Your task to perform on an android device: Empty the shopping cart on walmart.com. Search for "usb-c to usb-a" on walmart.com, select the first entry, and add it to the cart. Image 0: 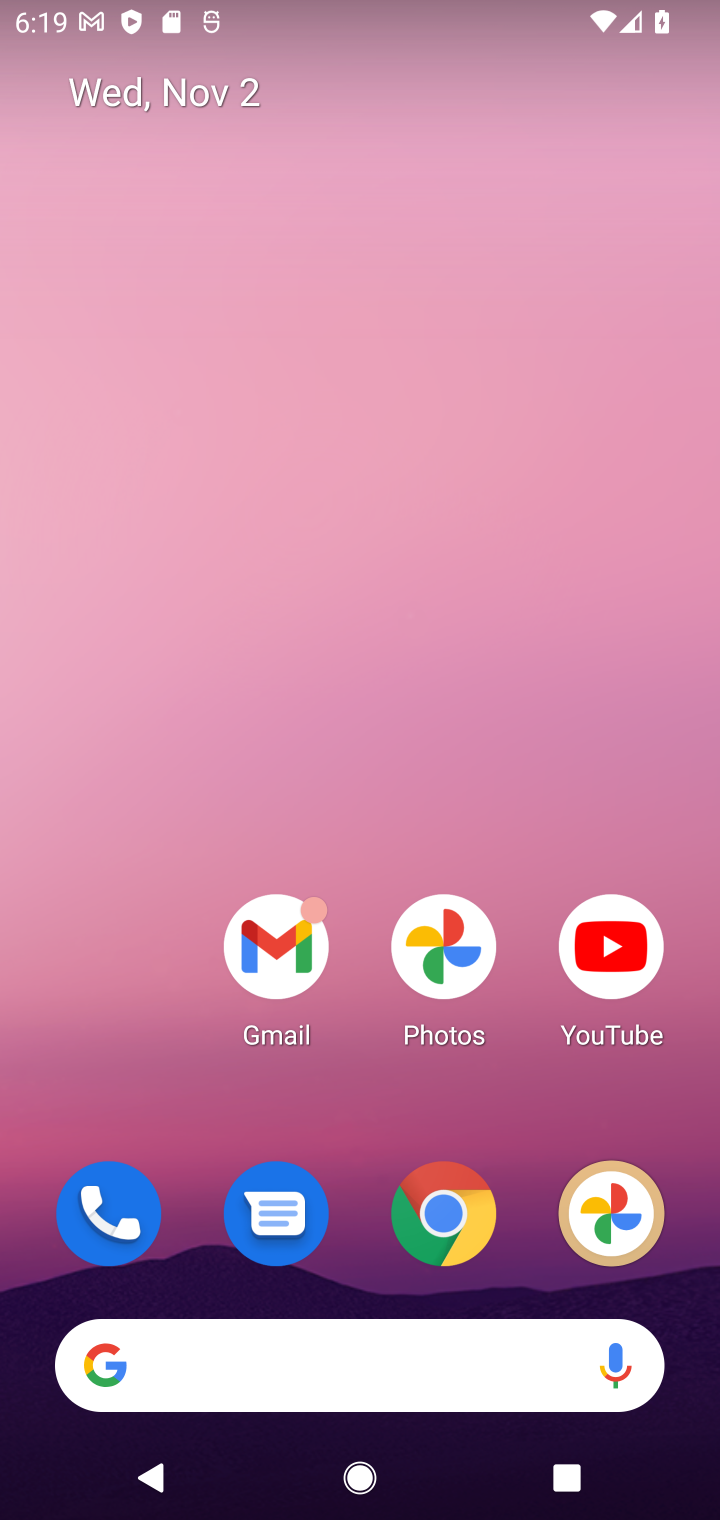
Step 0: click (442, 1229)
Your task to perform on an android device: Empty the shopping cart on walmart.com. Search for "usb-c to usb-a" on walmart.com, select the first entry, and add it to the cart. Image 1: 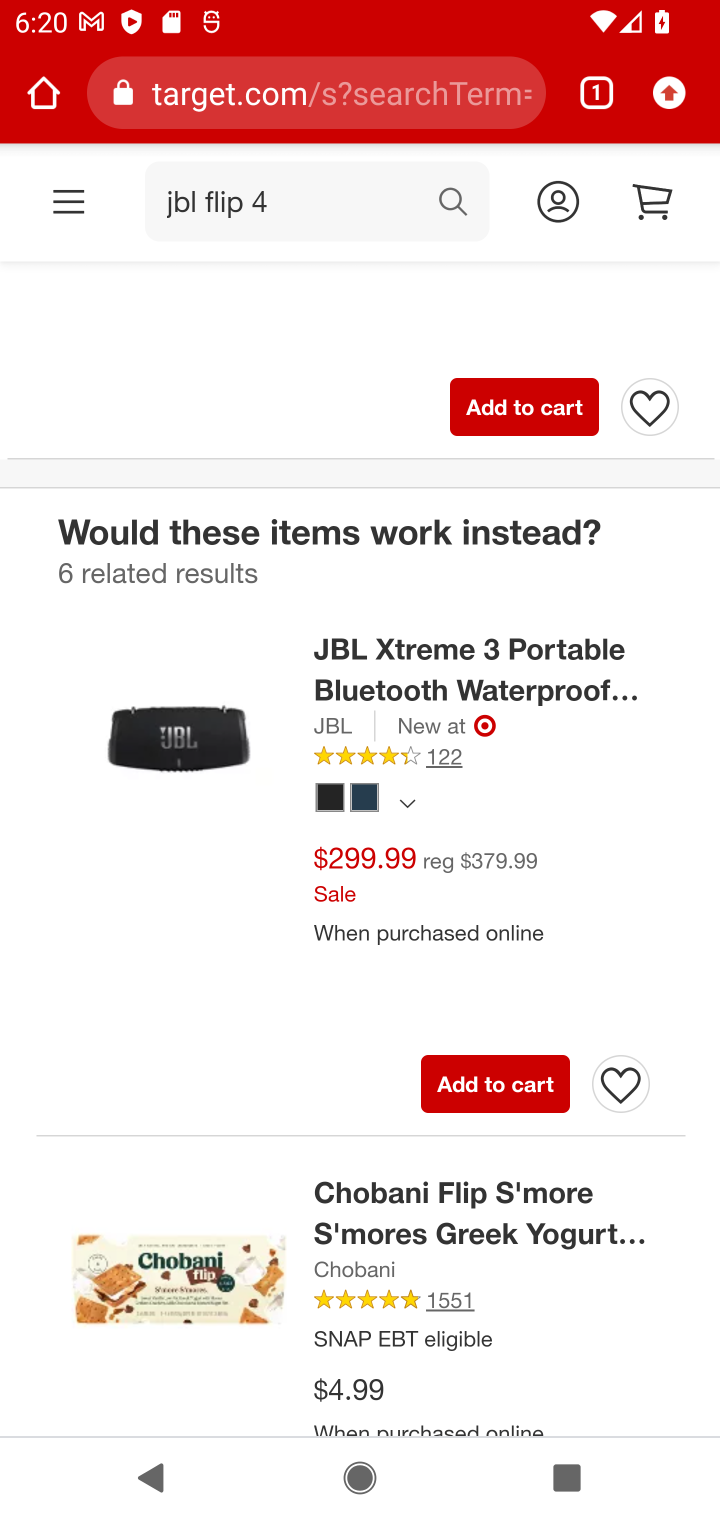
Step 1: click (313, 61)
Your task to perform on an android device: Empty the shopping cart on walmart.com. Search for "usb-c to usb-a" on walmart.com, select the first entry, and add it to the cart. Image 2: 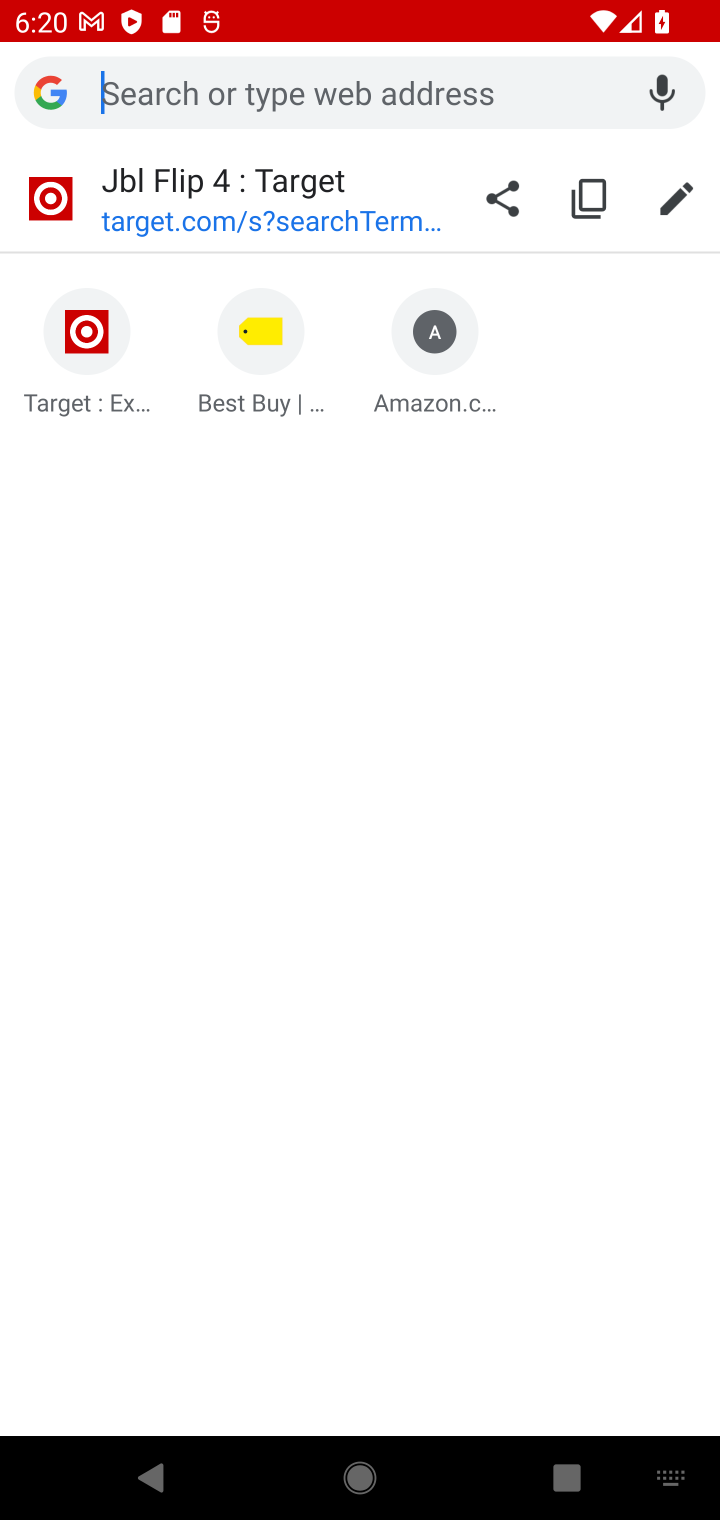
Step 2: type "walmart"
Your task to perform on an android device: Empty the shopping cart on walmart.com. Search for "usb-c to usb-a" on walmart.com, select the first entry, and add it to the cart. Image 3: 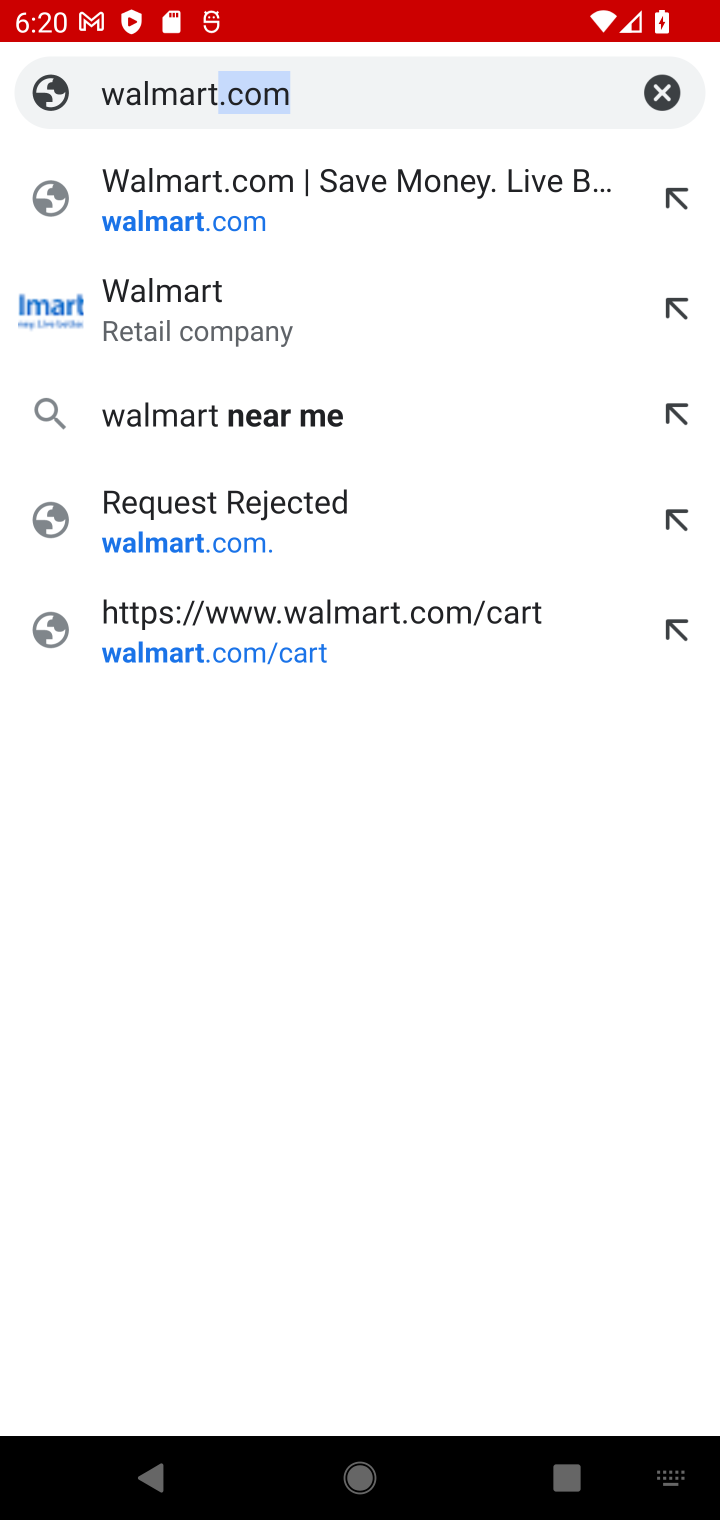
Step 3: click (143, 312)
Your task to perform on an android device: Empty the shopping cart on walmart.com. Search for "usb-c to usb-a" on walmart.com, select the first entry, and add it to the cart. Image 4: 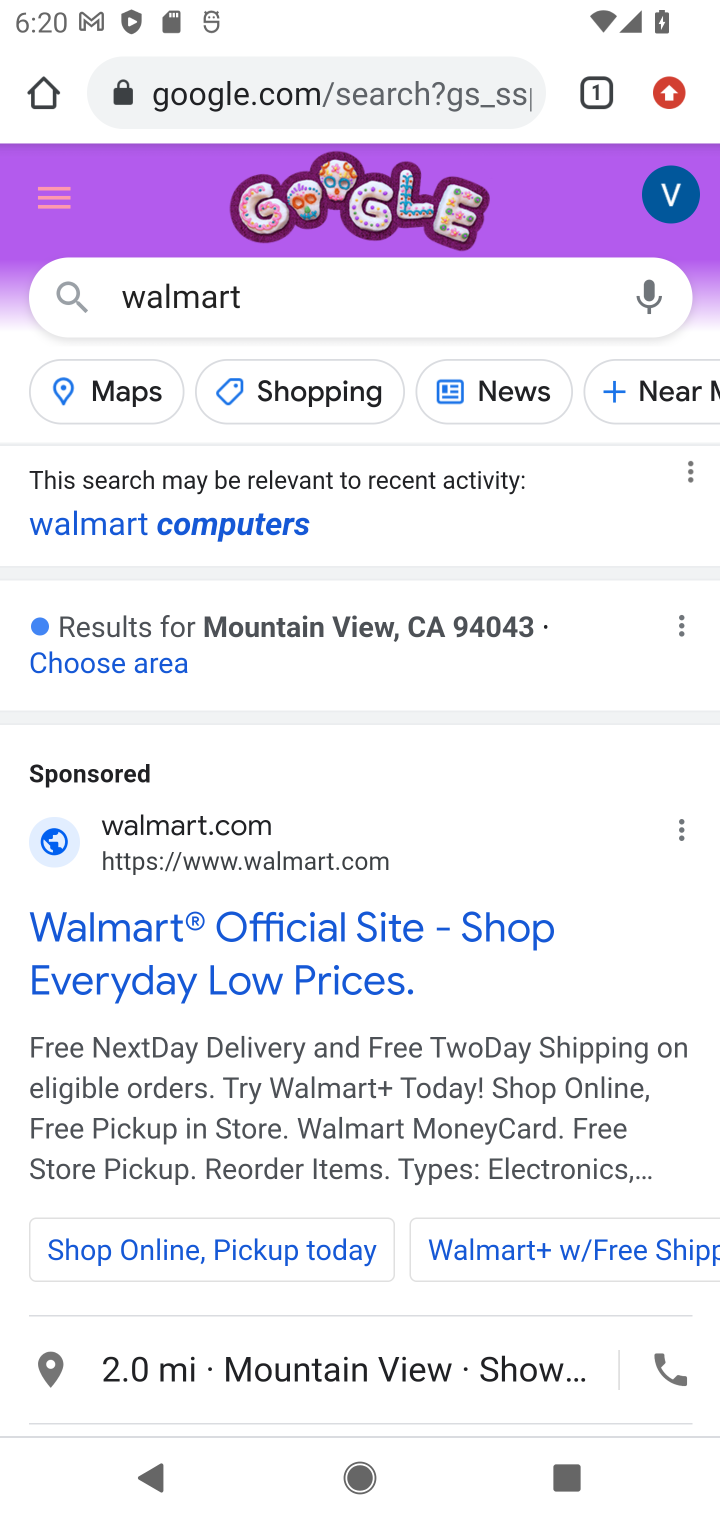
Step 4: click (124, 935)
Your task to perform on an android device: Empty the shopping cart on walmart.com. Search for "usb-c to usb-a" on walmart.com, select the first entry, and add it to the cart. Image 5: 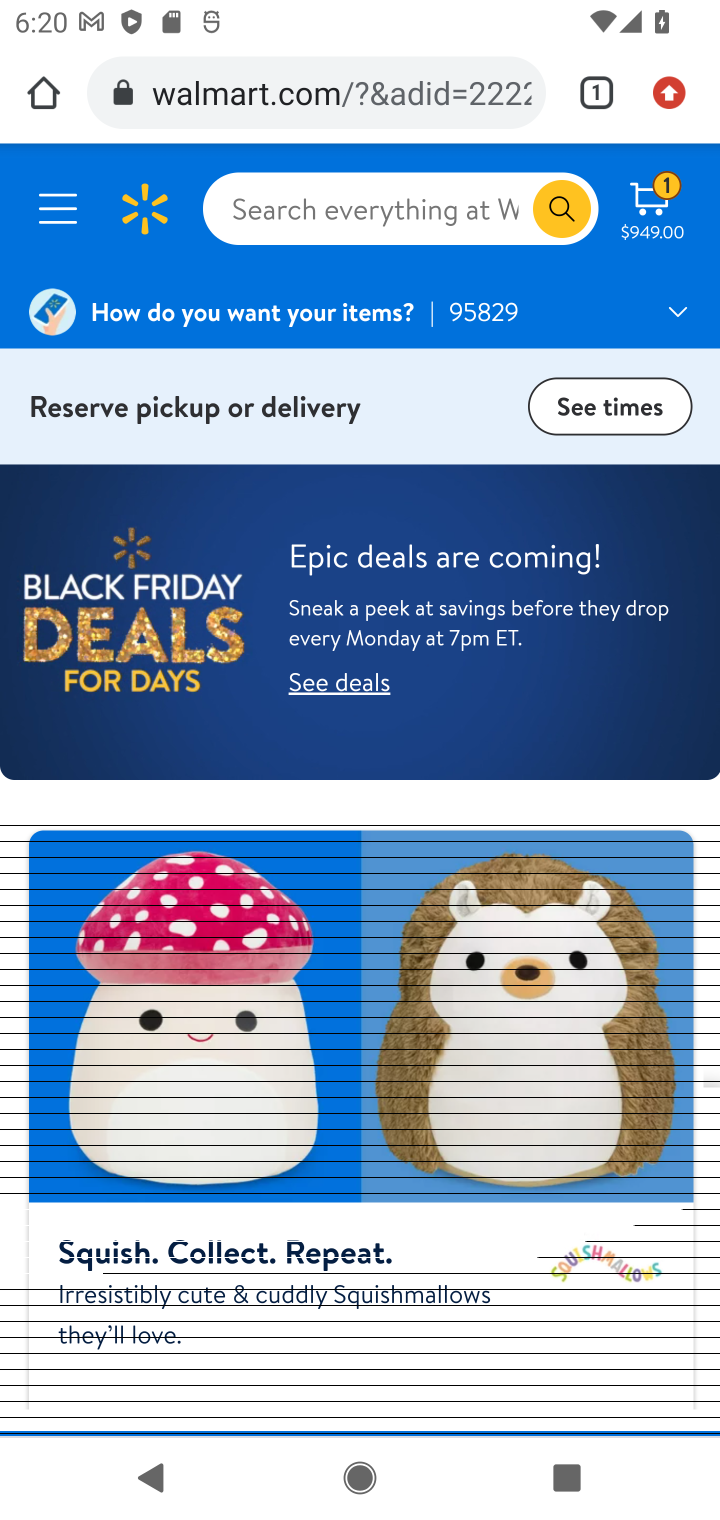
Step 5: click (666, 1134)
Your task to perform on an android device: Empty the shopping cart on walmart.com. Search for "usb-c to usb-a" on walmart.com, select the first entry, and add it to the cart. Image 6: 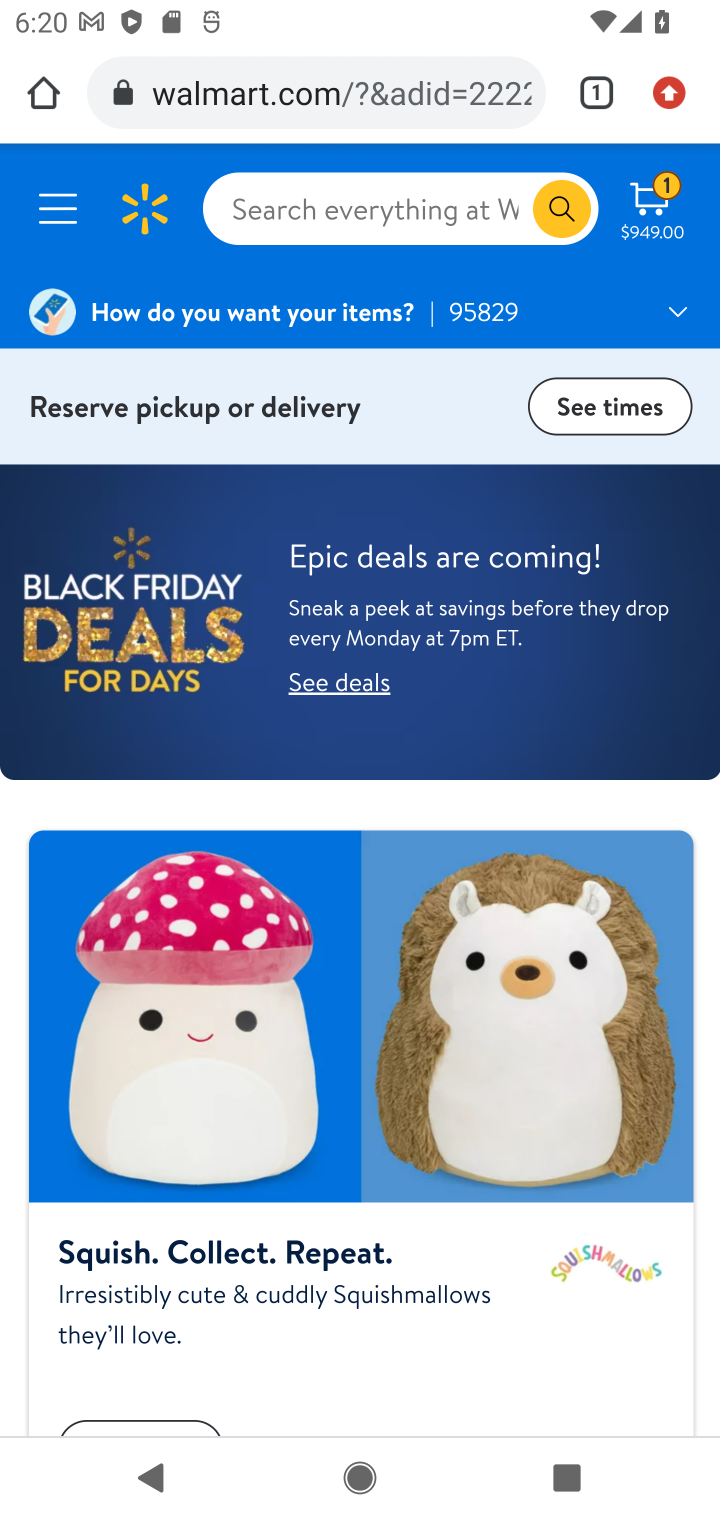
Step 6: click (651, 197)
Your task to perform on an android device: Empty the shopping cart on walmart.com. Search for "usb-c to usb-a" on walmart.com, select the first entry, and add it to the cart. Image 7: 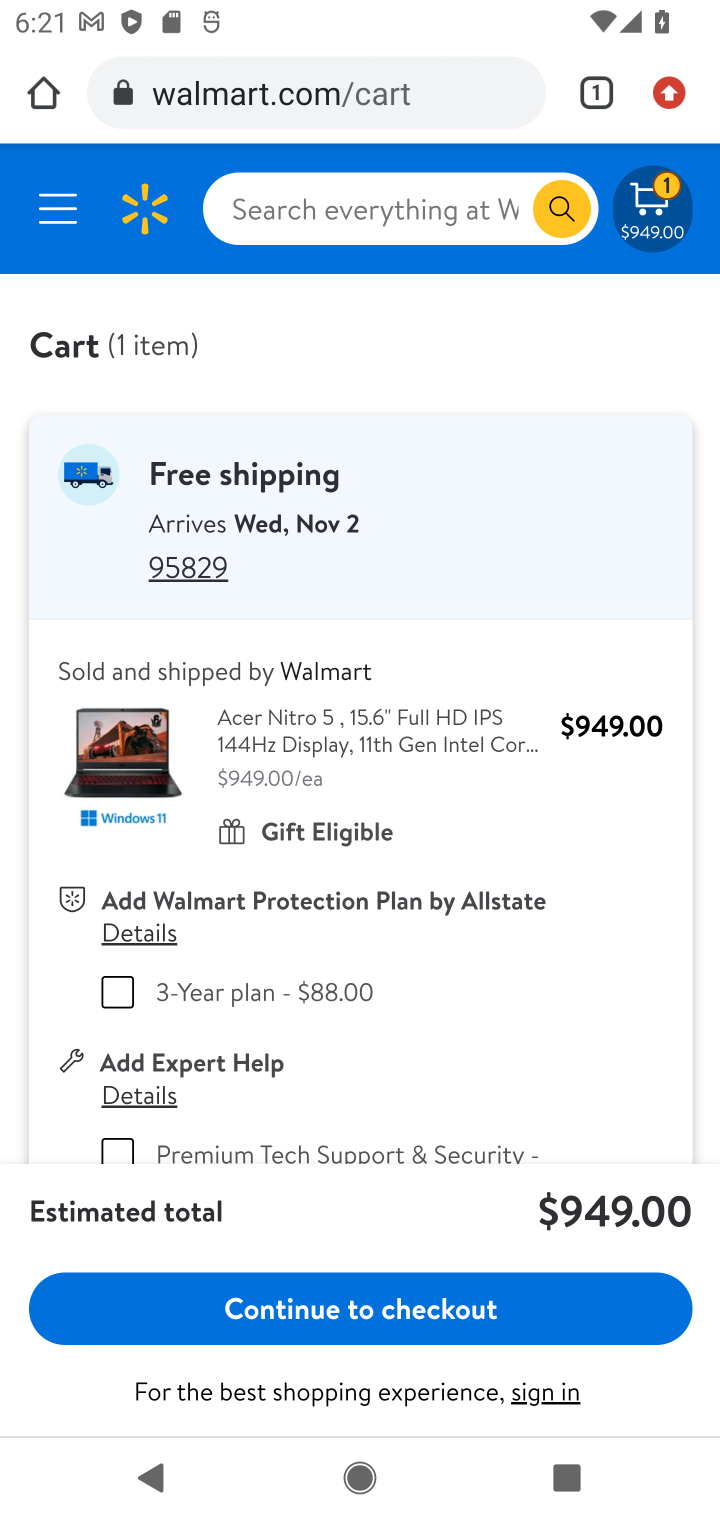
Step 7: drag from (608, 1082) to (579, 536)
Your task to perform on an android device: Empty the shopping cart on walmart.com. Search for "usb-c to usb-a" on walmart.com, select the first entry, and add it to the cart. Image 8: 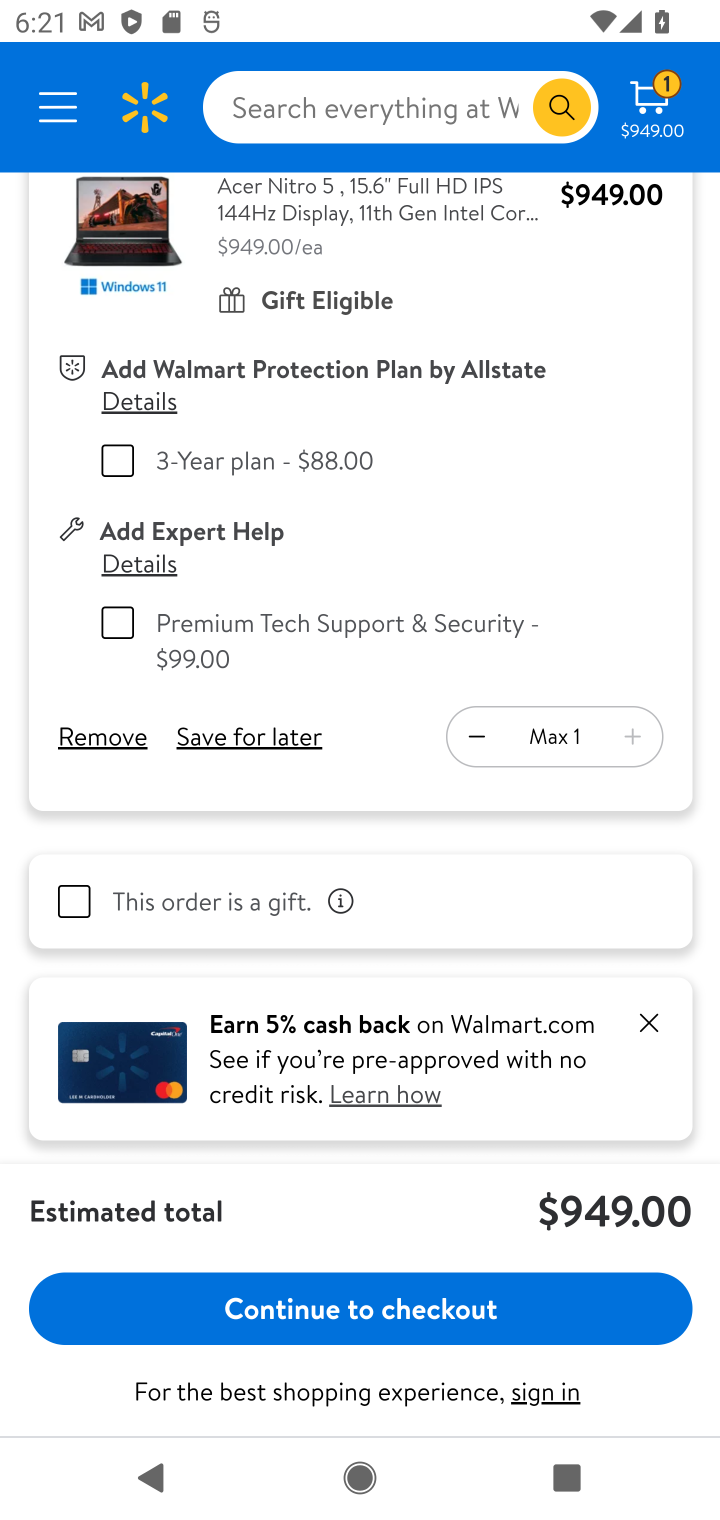
Step 8: click (91, 738)
Your task to perform on an android device: Empty the shopping cart on walmart.com. Search for "usb-c to usb-a" on walmart.com, select the first entry, and add it to the cart. Image 9: 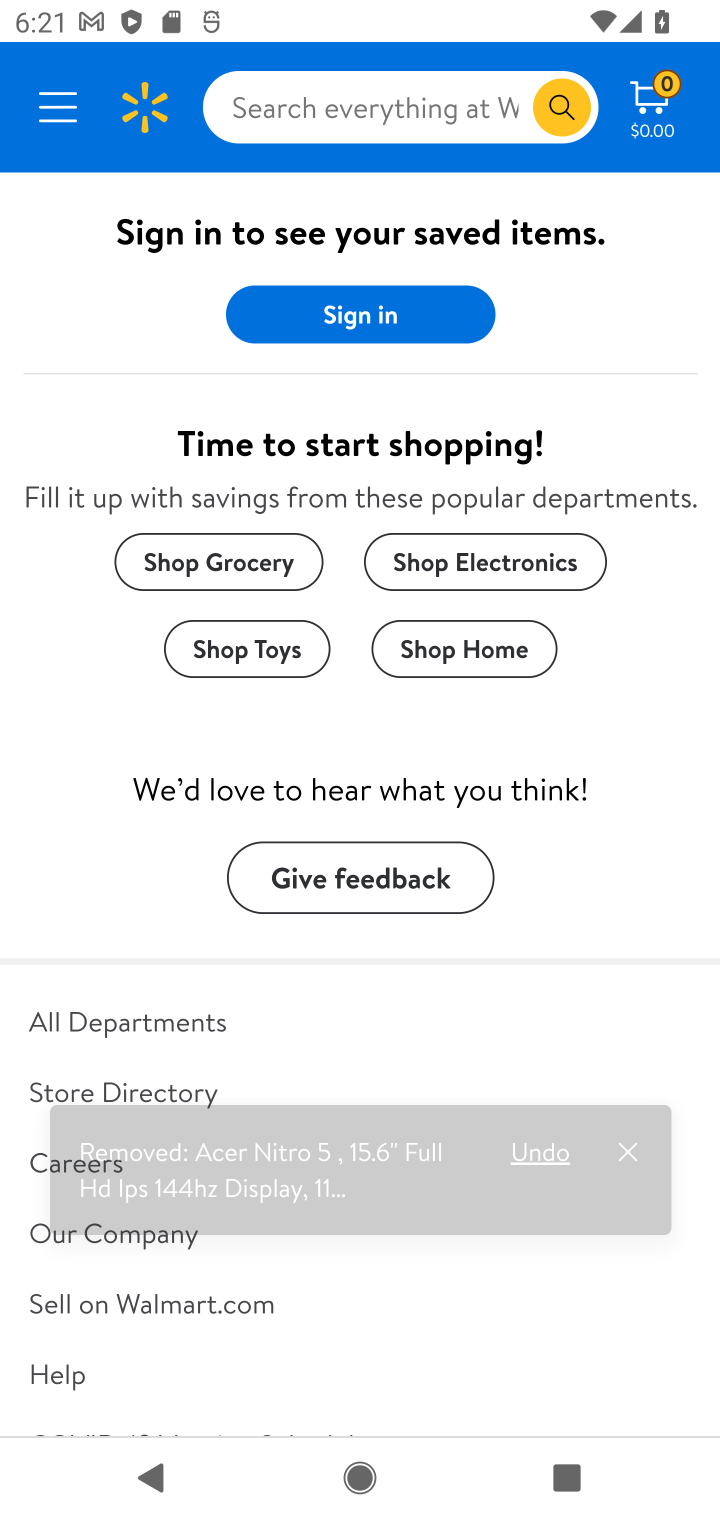
Step 9: click (341, 107)
Your task to perform on an android device: Empty the shopping cart on walmart.com. Search for "usb-c to usb-a" on walmart.com, select the first entry, and add it to the cart. Image 10: 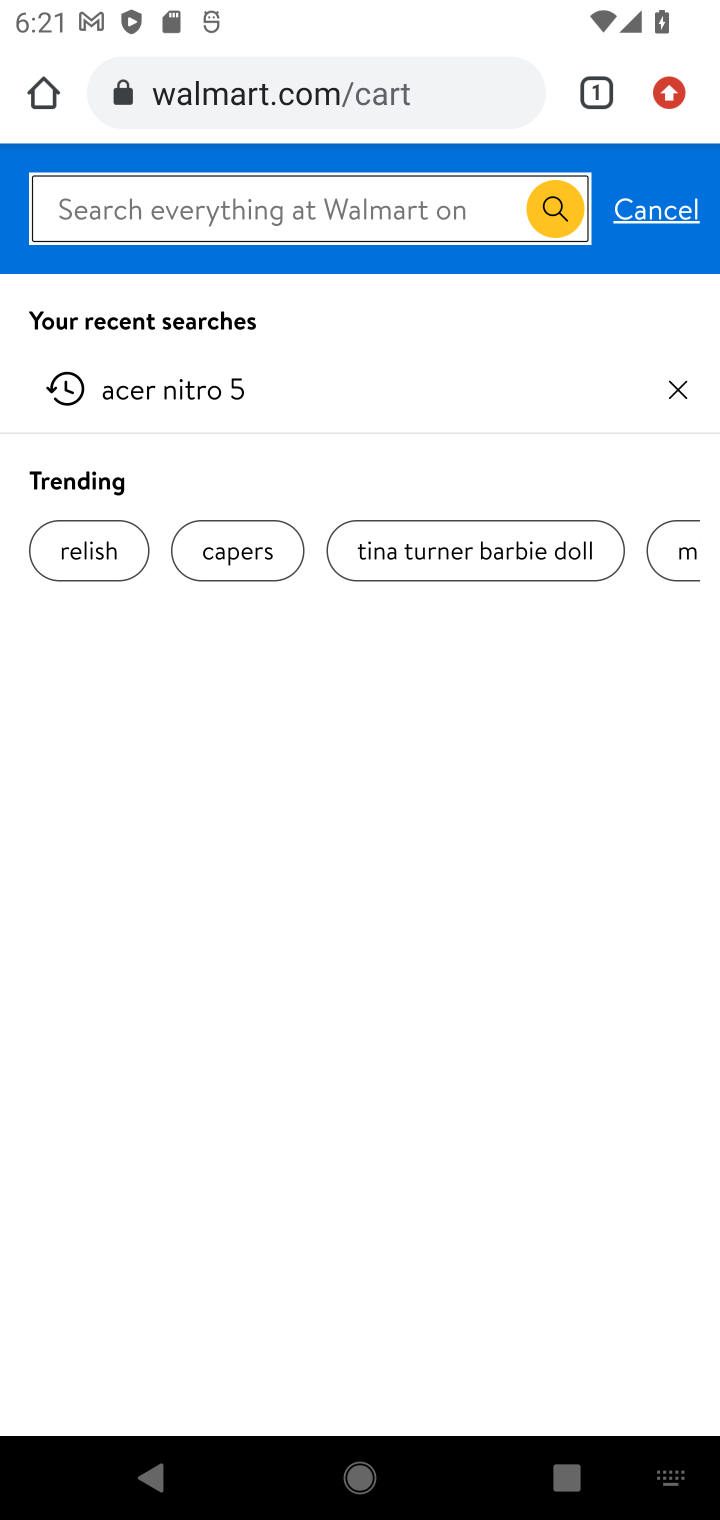
Step 10: type "usb-c to usb-a"
Your task to perform on an android device: Empty the shopping cart on walmart.com. Search for "usb-c to usb-a" on walmart.com, select the first entry, and add it to the cart. Image 11: 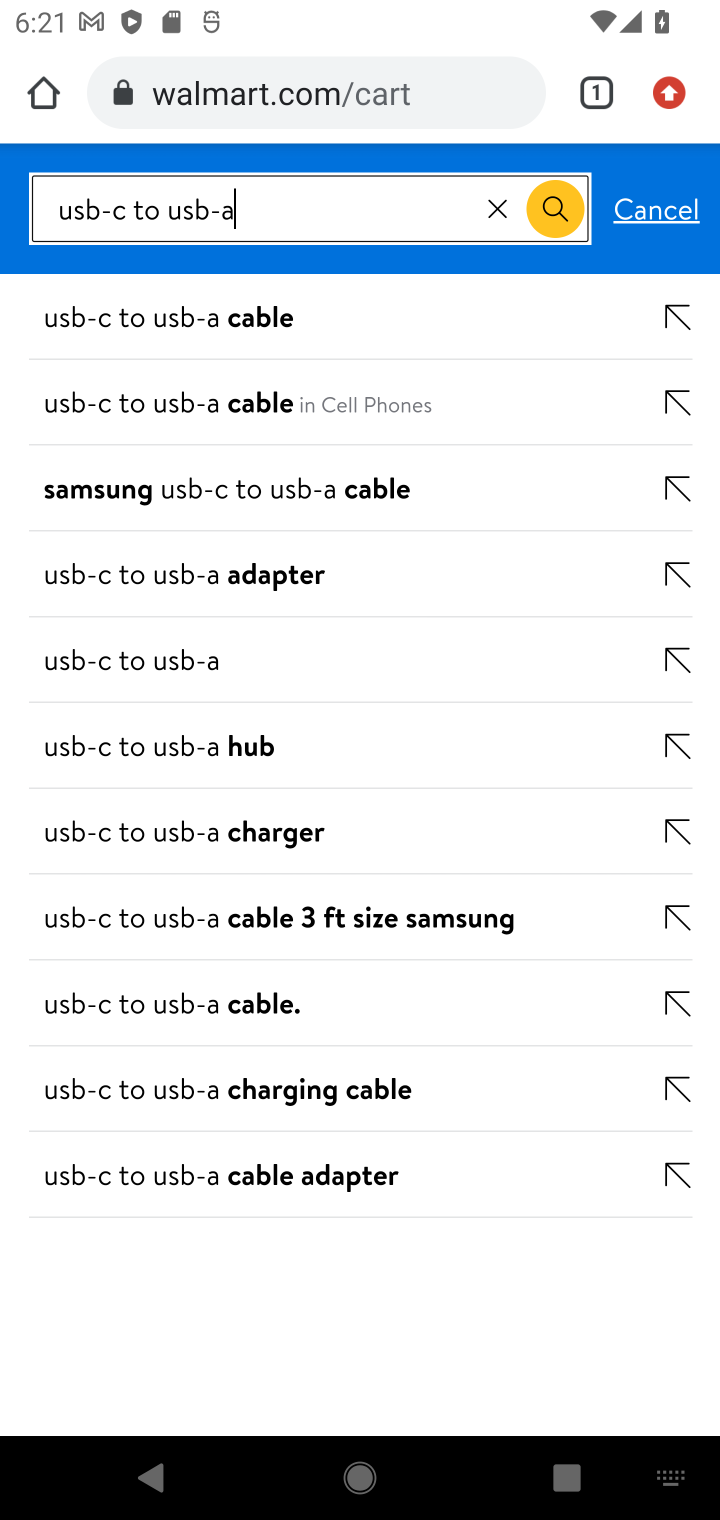
Step 11: click (104, 301)
Your task to perform on an android device: Empty the shopping cart on walmart.com. Search for "usb-c to usb-a" on walmart.com, select the first entry, and add it to the cart. Image 12: 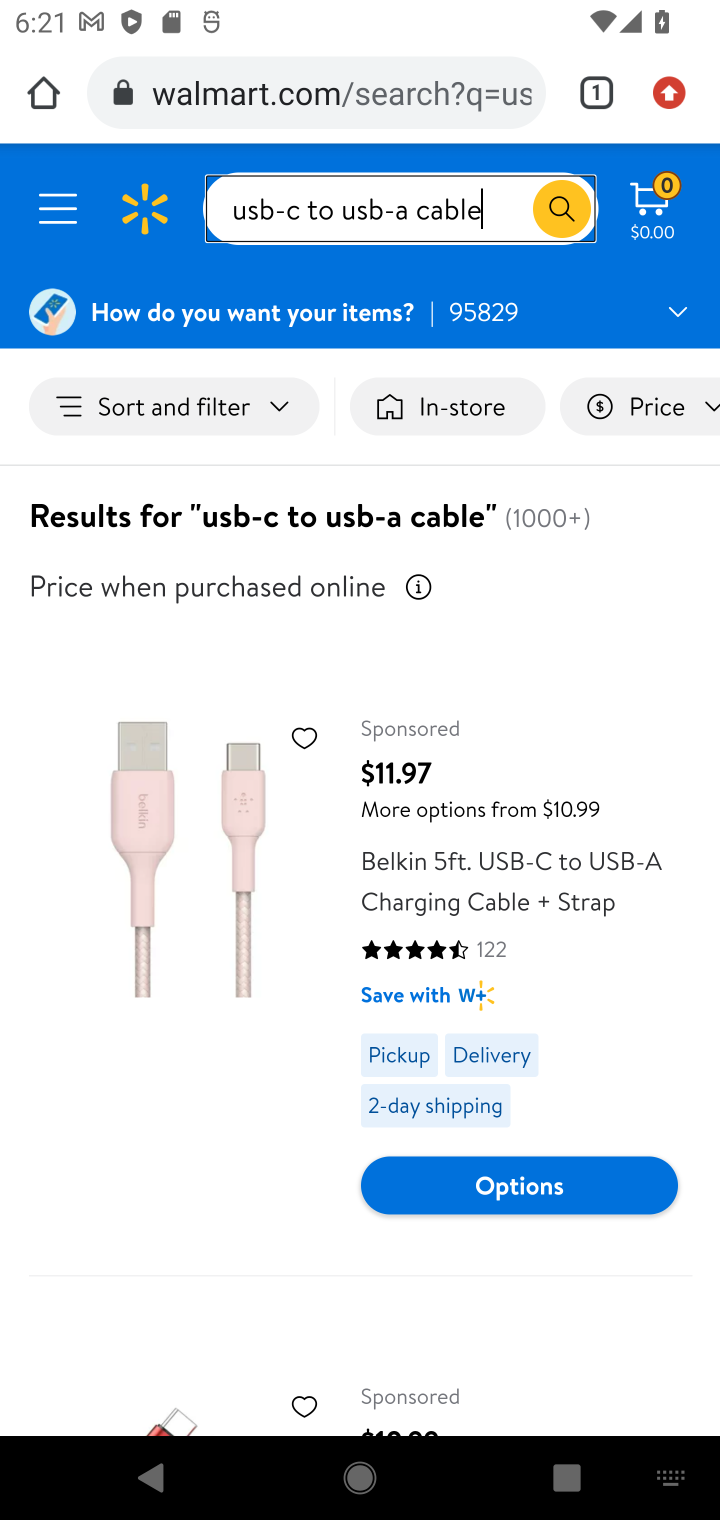
Step 12: drag from (313, 1069) to (354, 859)
Your task to perform on an android device: Empty the shopping cart on walmart.com. Search for "usb-c to usb-a" on walmart.com, select the first entry, and add it to the cart. Image 13: 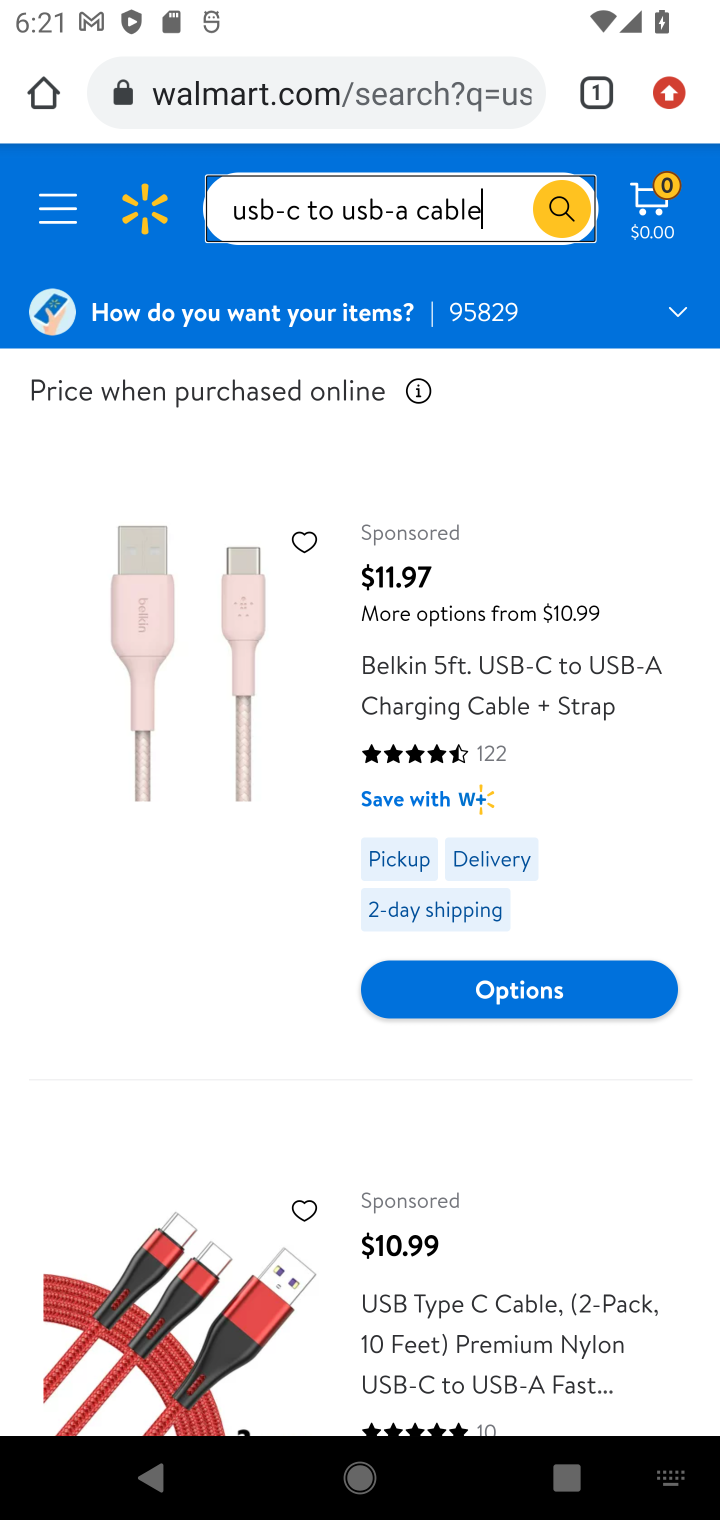
Step 13: click (500, 988)
Your task to perform on an android device: Empty the shopping cart on walmart.com. Search for "usb-c to usb-a" on walmart.com, select the first entry, and add it to the cart. Image 14: 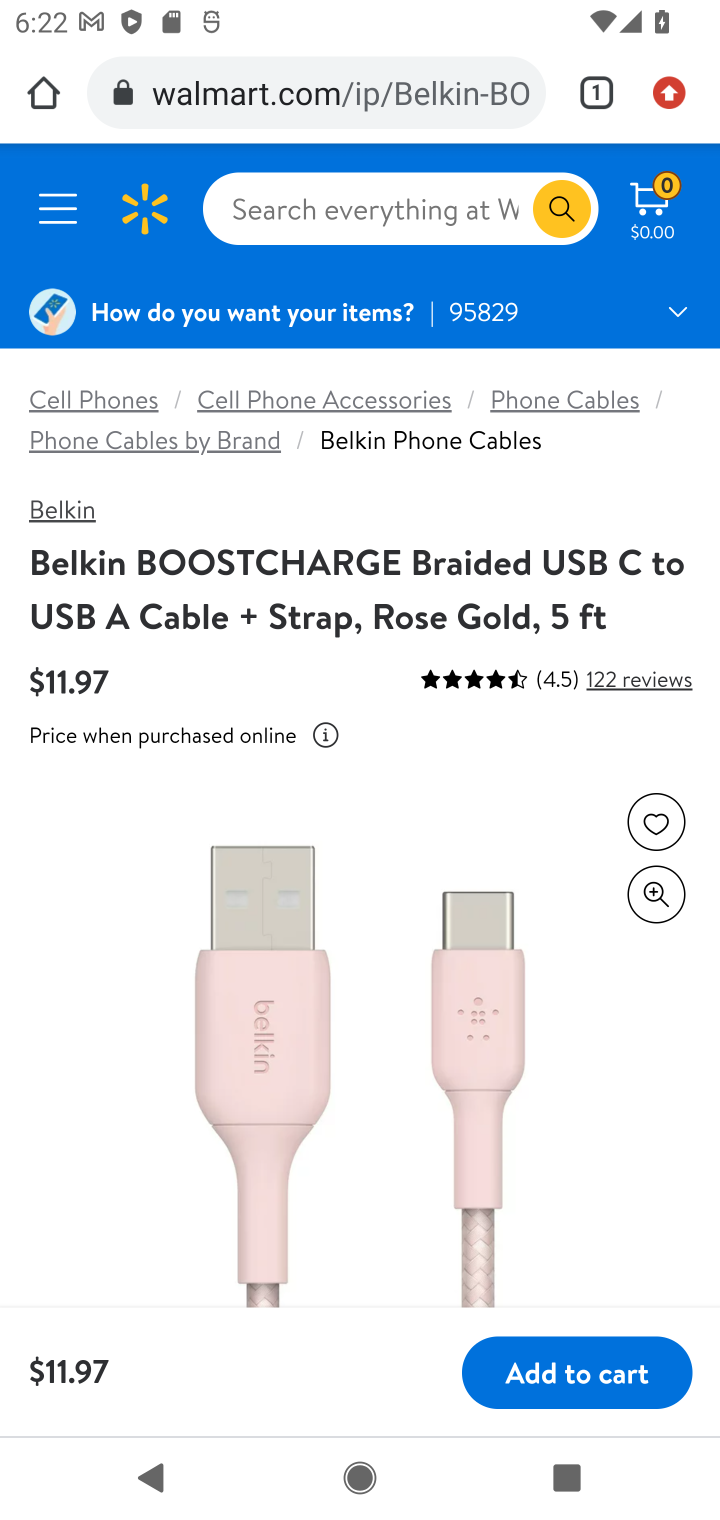
Step 14: click (600, 1368)
Your task to perform on an android device: Empty the shopping cart on walmart.com. Search for "usb-c to usb-a" on walmart.com, select the first entry, and add it to the cart. Image 15: 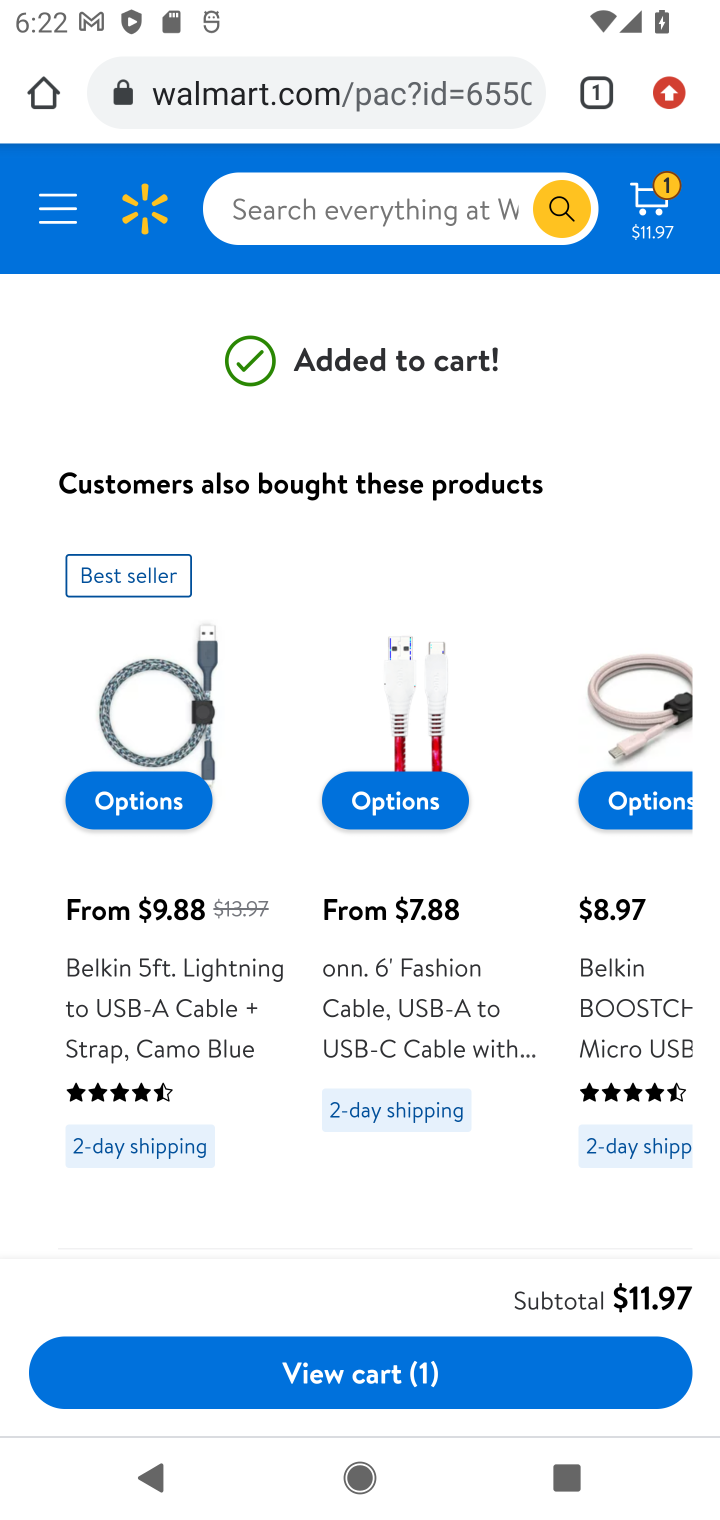
Step 15: task complete